Your task to perform on an android device: Open Wikipedia Image 0: 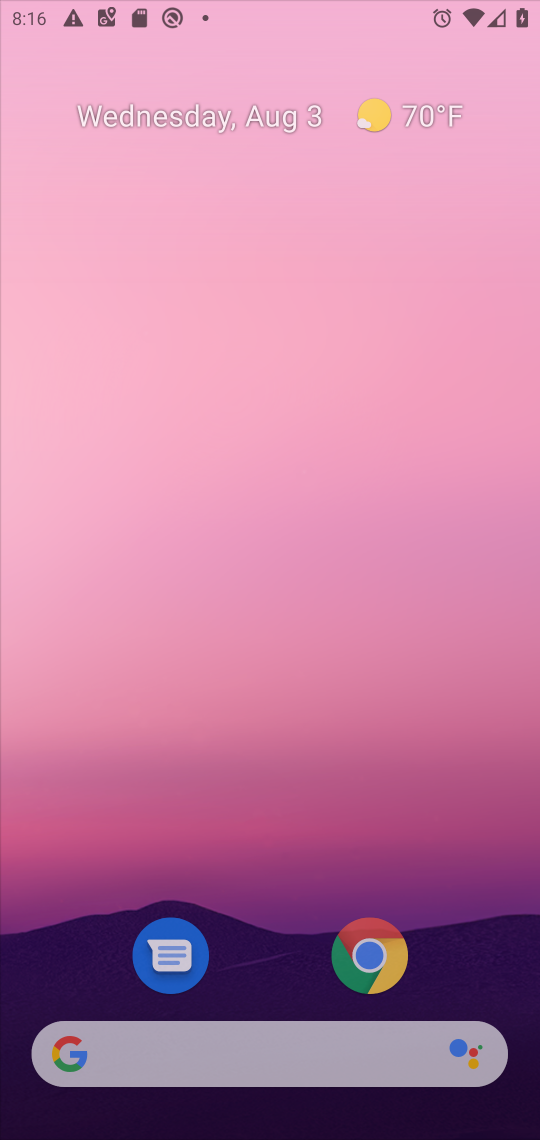
Step 0: press home button
Your task to perform on an android device: Open Wikipedia Image 1: 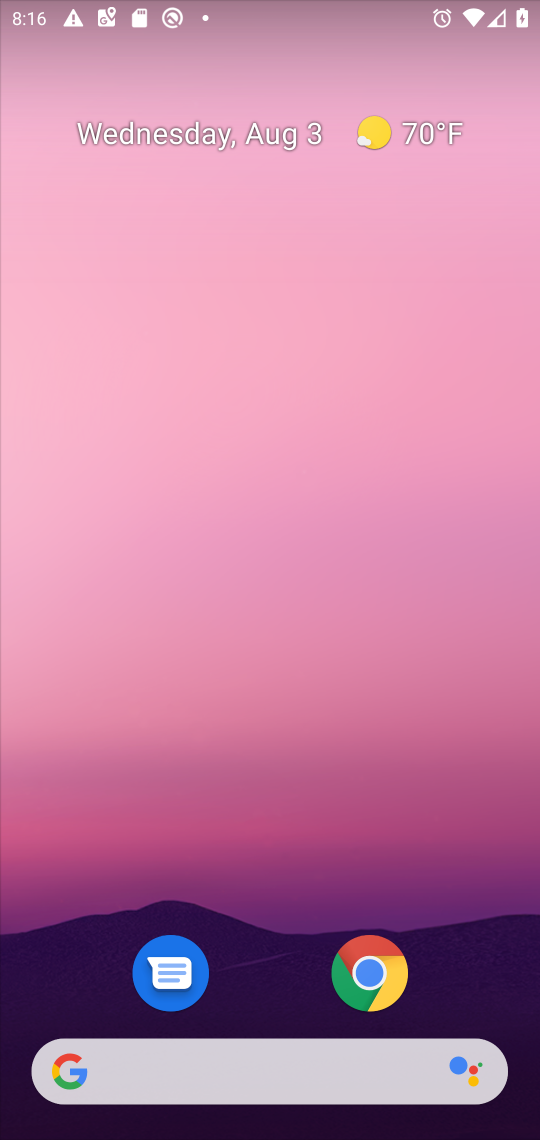
Step 1: press home button
Your task to perform on an android device: Open Wikipedia Image 2: 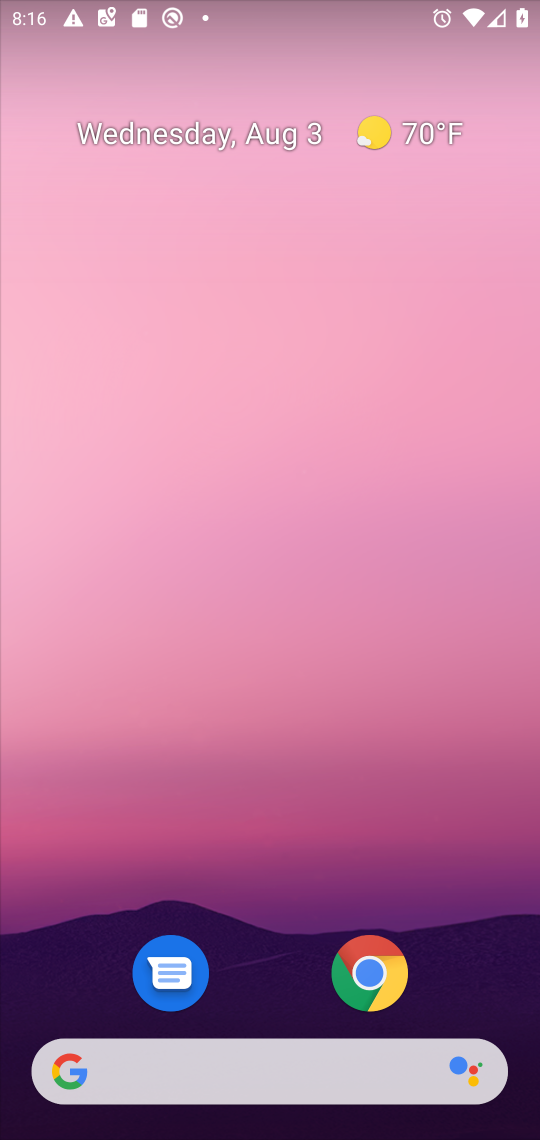
Step 2: press home button
Your task to perform on an android device: Open Wikipedia Image 3: 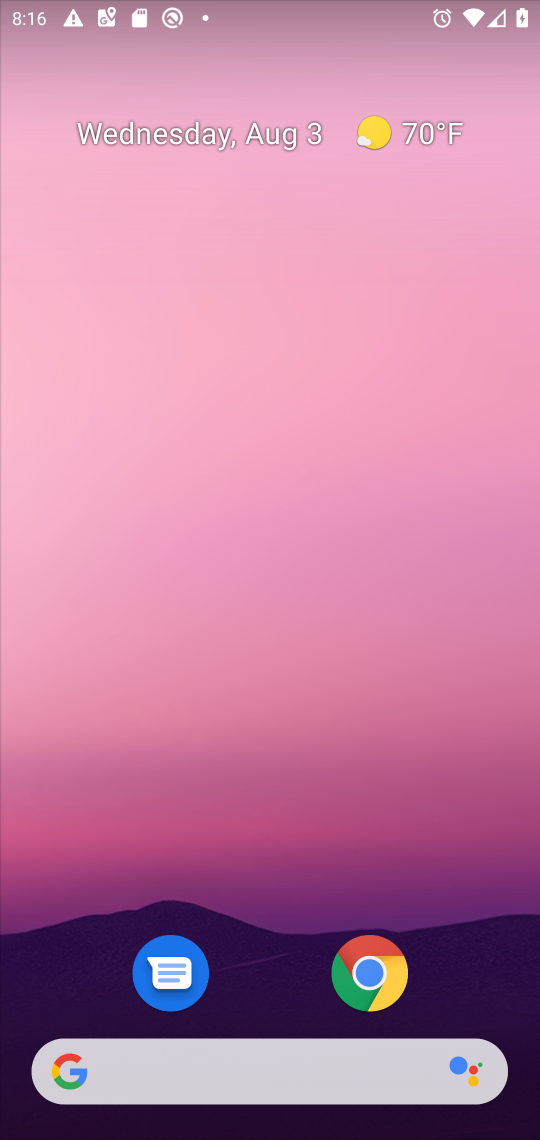
Step 3: drag from (282, 994) to (368, 162)
Your task to perform on an android device: Open Wikipedia Image 4: 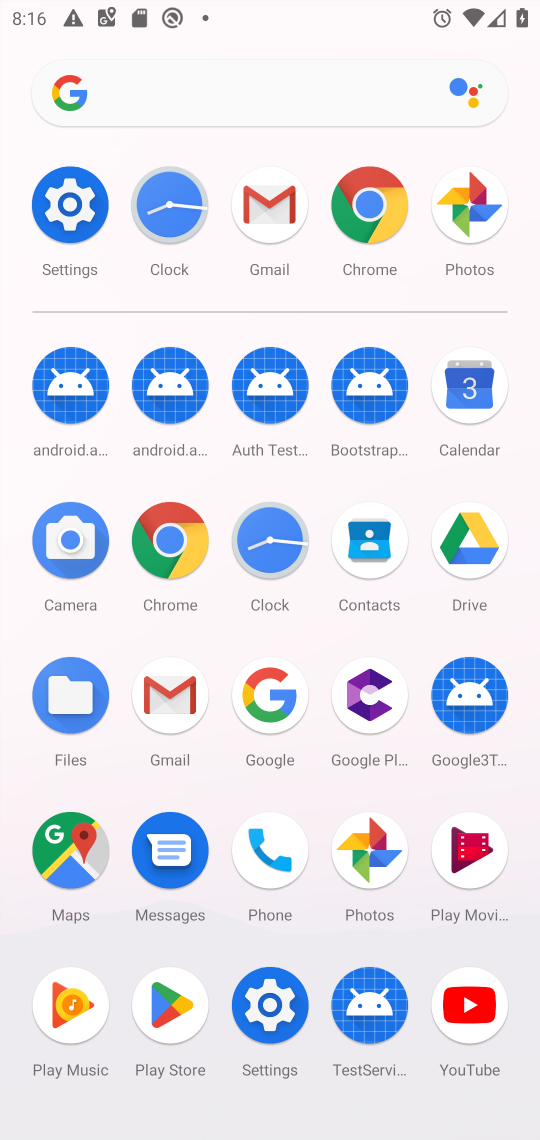
Step 4: click (367, 194)
Your task to perform on an android device: Open Wikipedia Image 5: 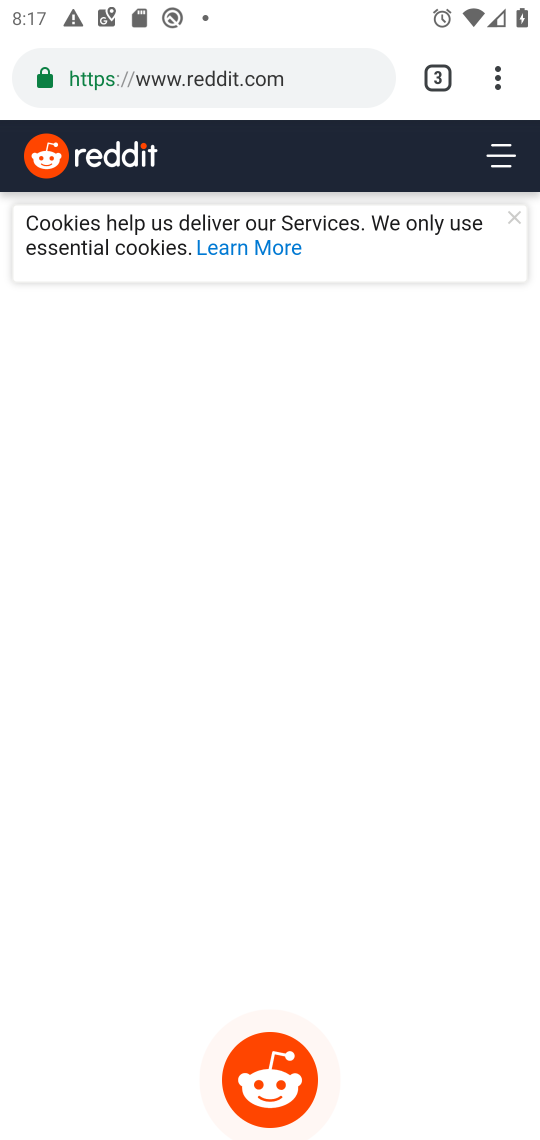
Step 5: click (444, 70)
Your task to perform on an android device: Open Wikipedia Image 6: 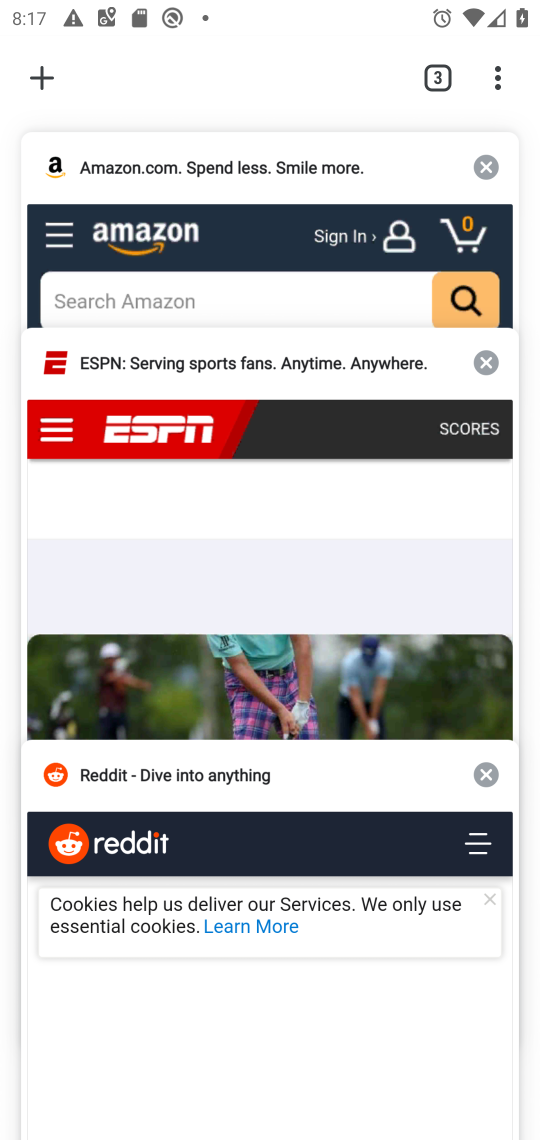
Step 6: click (39, 80)
Your task to perform on an android device: Open Wikipedia Image 7: 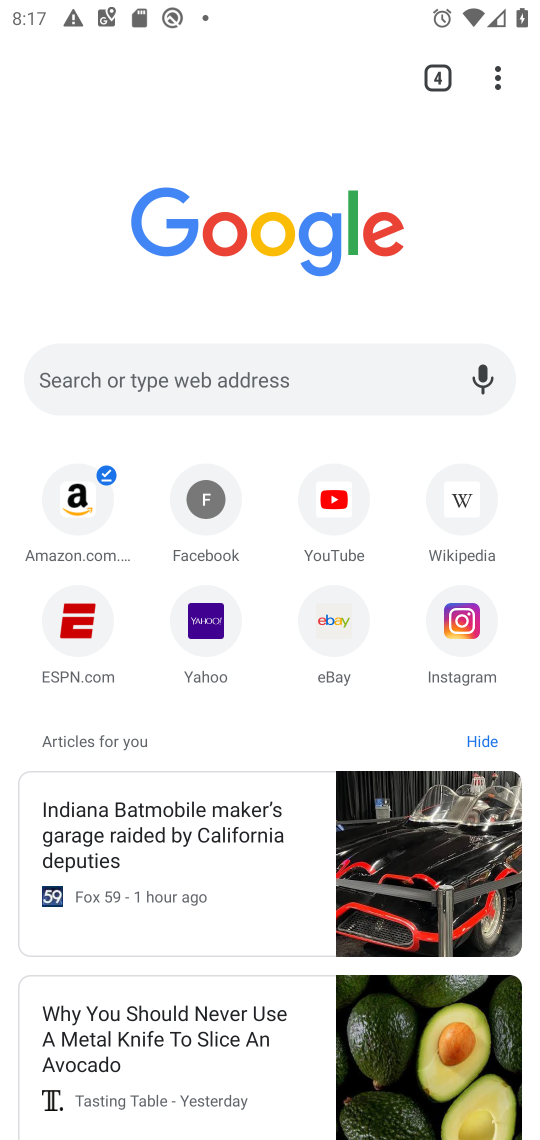
Step 7: click (462, 494)
Your task to perform on an android device: Open Wikipedia Image 8: 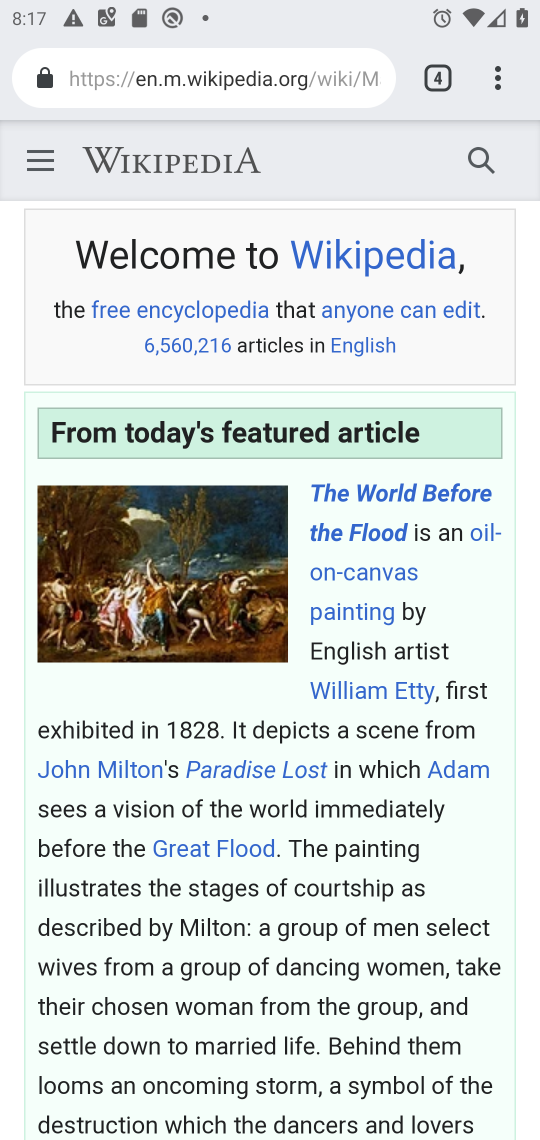
Step 8: task complete